Your task to perform on an android device: toggle sleep mode Image 0: 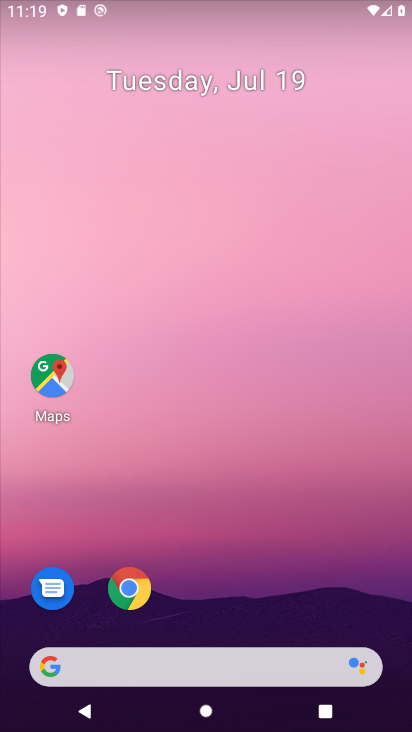
Step 0: drag from (328, 426) to (32, 17)
Your task to perform on an android device: toggle sleep mode Image 1: 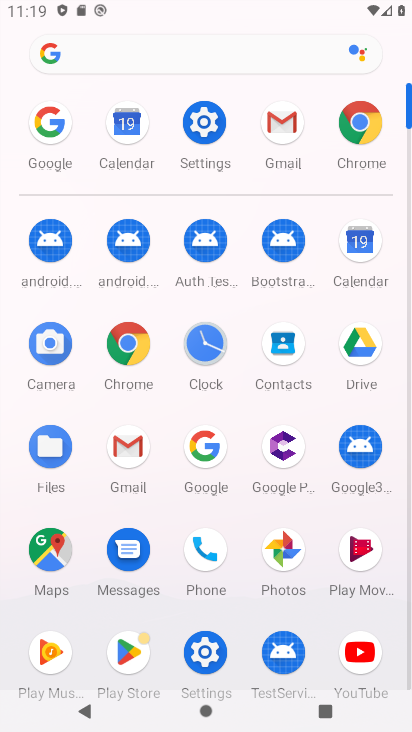
Step 1: click (206, 654)
Your task to perform on an android device: toggle sleep mode Image 2: 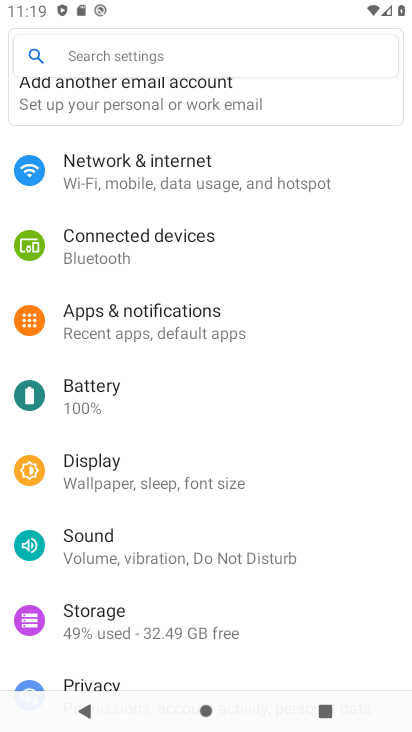
Step 2: task complete